Your task to perform on an android device: Go to eBay Image 0: 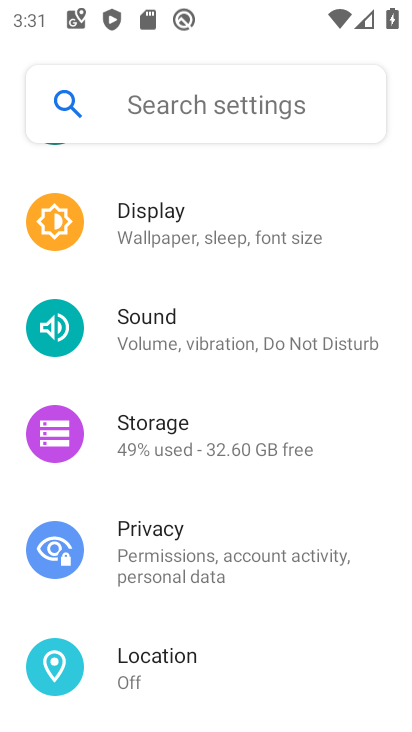
Step 0: press home button
Your task to perform on an android device: Go to eBay Image 1: 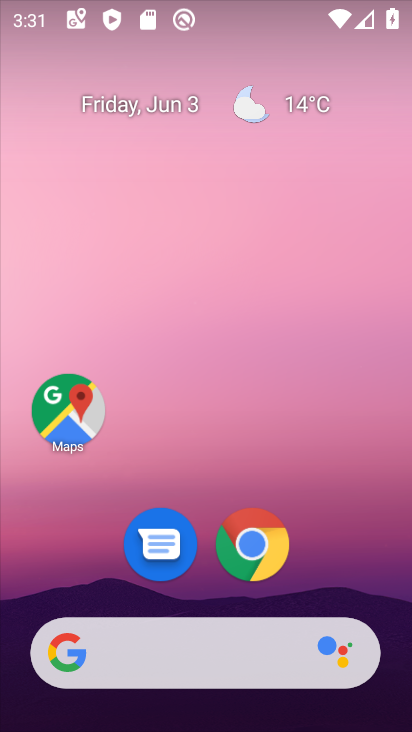
Step 1: click (250, 560)
Your task to perform on an android device: Go to eBay Image 2: 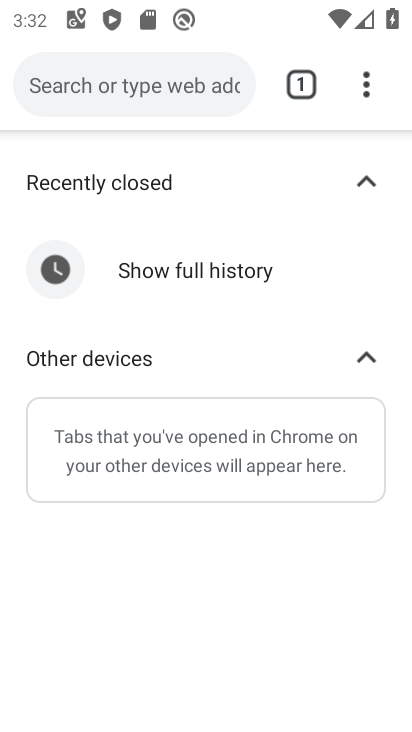
Step 2: click (97, 97)
Your task to perform on an android device: Go to eBay Image 3: 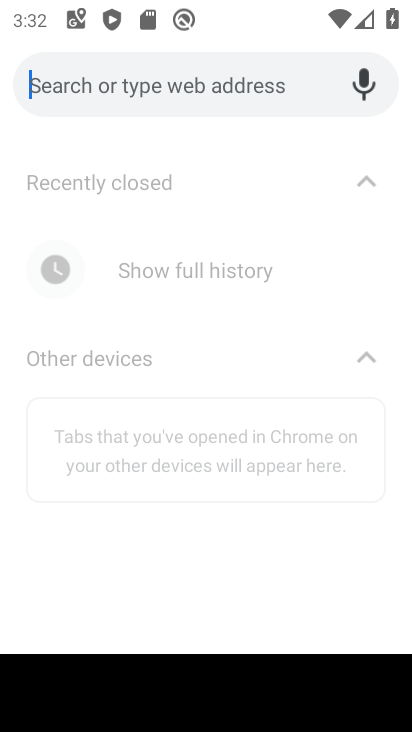
Step 3: type "ebay"
Your task to perform on an android device: Go to eBay Image 4: 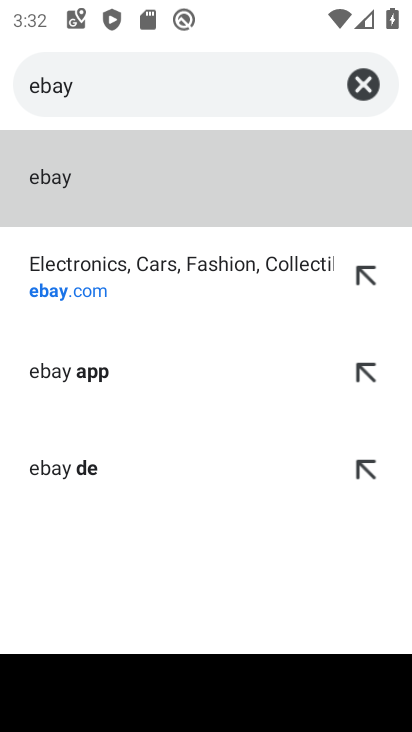
Step 4: click (66, 194)
Your task to perform on an android device: Go to eBay Image 5: 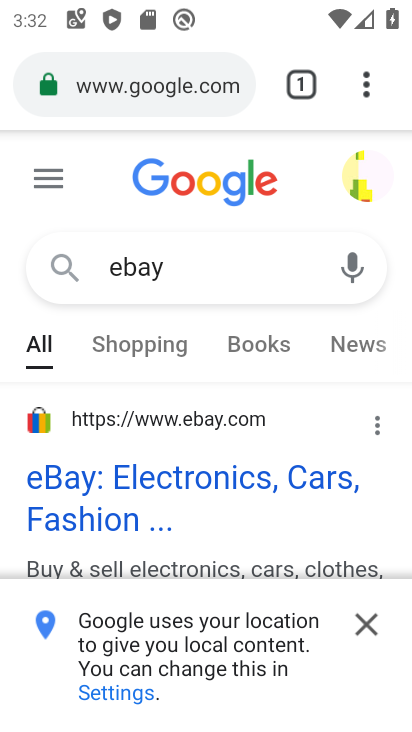
Step 5: click (127, 456)
Your task to perform on an android device: Go to eBay Image 6: 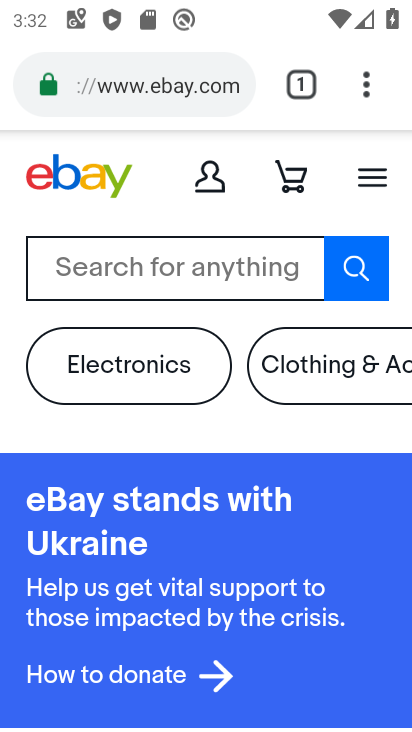
Step 6: task complete